Your task to perform on an android device: turn pop-ups off in chrome Image 0: 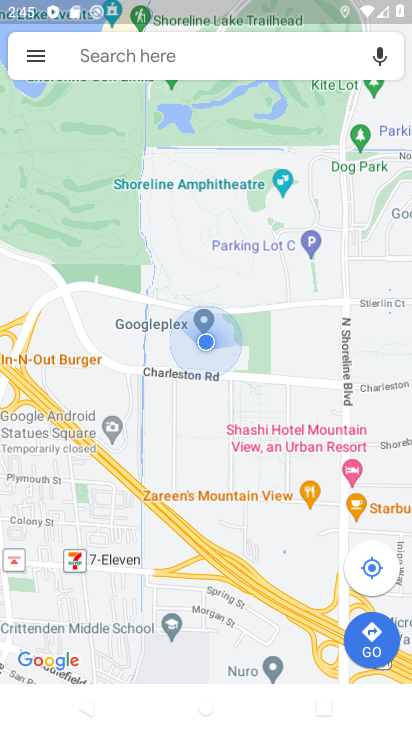
Step 0: press home button
Your task to perform on an android device: turn pop-ups off in chrome Image 1: 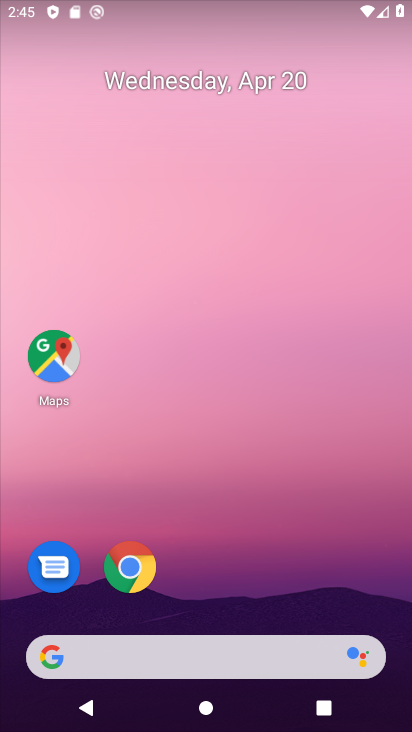
Step 1: drag from (220, 394) to (212, 63)
Your task to perform on an android device: turn pop-ups off in chrome Image 2: 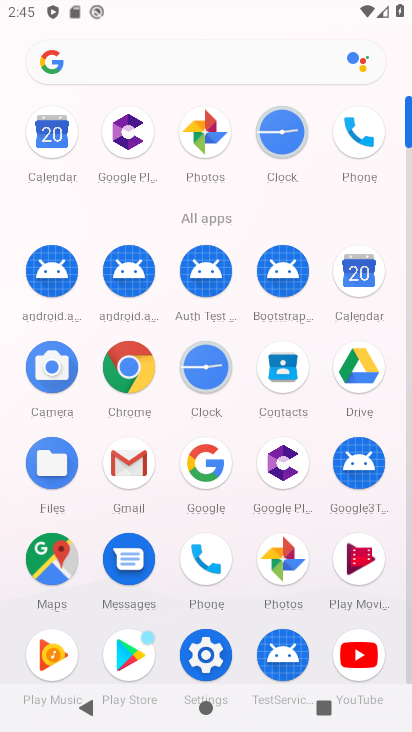
Step 2: click (128, 341)
Your task to perform on an android device: turn pop-ups off in chrome Image 3: 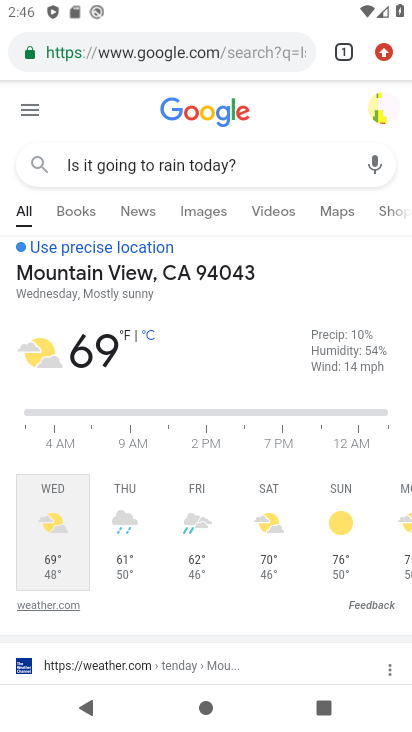
Step 3: click (386, 70)
Your task to perform on an android device: turn pop-ups off in chrome Image 4: 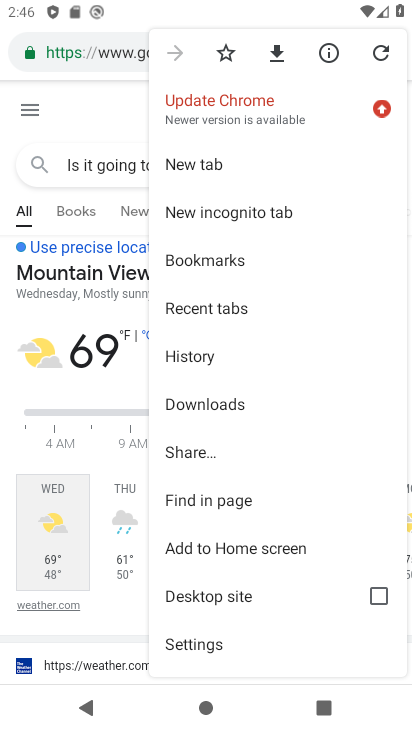
Step 4: click (268, 655)
Your task to perform on an android device: turn pop-ups off in chrome Image 5: 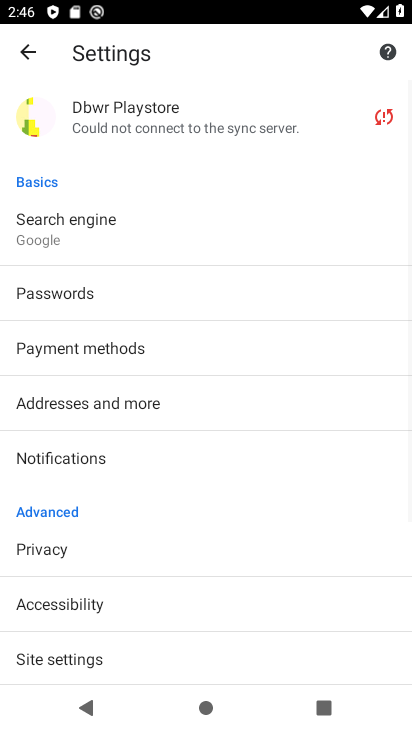
Step 5: drag from (268, 655) to (270, 463)
Your task to perform on an android device: turn pop-ups off in chrome Image 6: 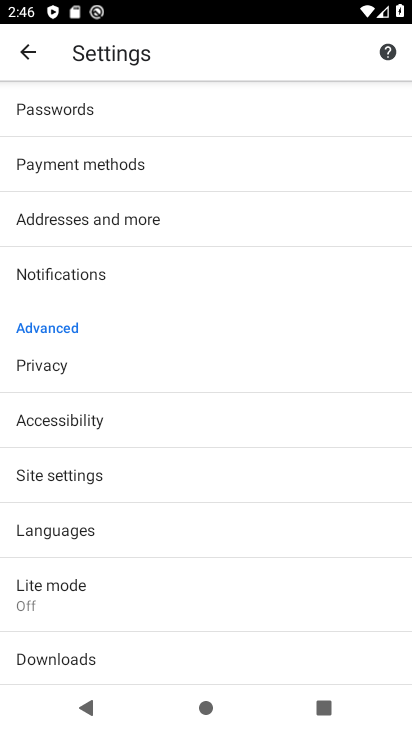
Step 6: click (243, 480)
Your task to perform on an android device: turn pop-ups off in chrome Image 7: 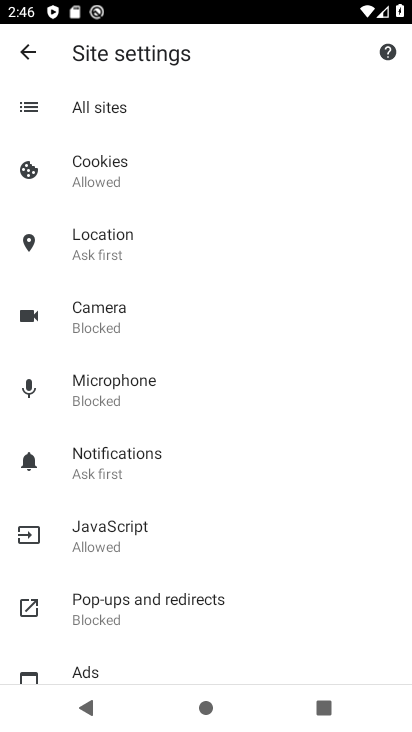
Step 7: click (235, 619)
Your task to perform on an android device: turn pop-ups off in chrome Image 8: 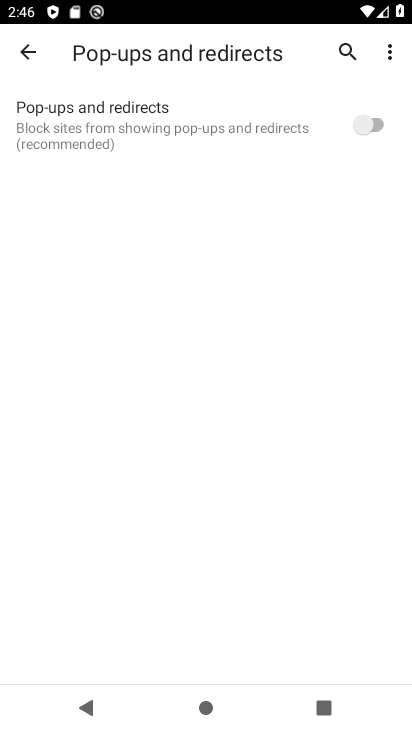
Step 8: task complete